Your task to perform on an android device: toggle show notifications on the lock screen Image 0: 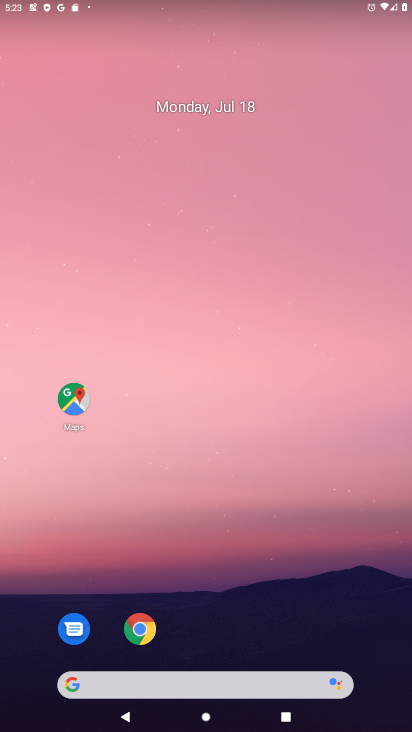
Step 0: drag from (298, 602) to (236, 41)
Your task to perform on an android device: toggle show notifications on the lock screen Image 1: 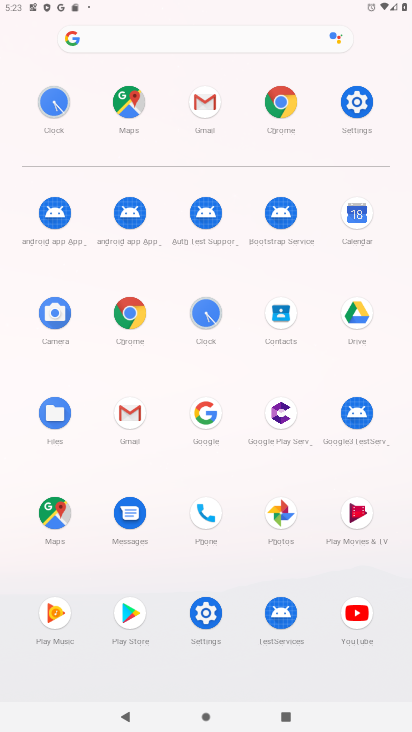
Step 1: click (356, 95)
Your task to perform on an android device: toggle show notifications on the lock screen Image 2: 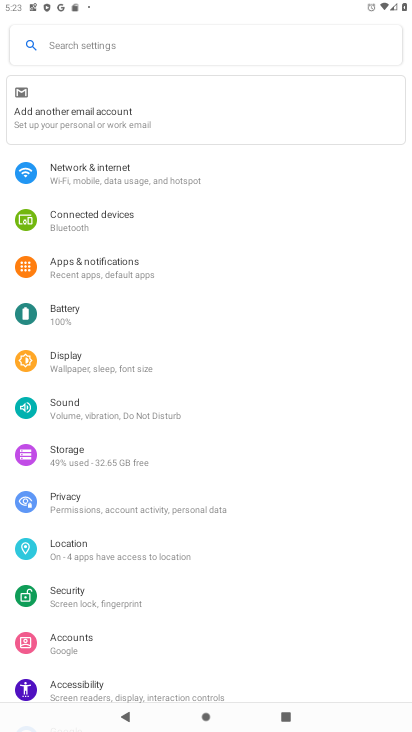
Step 2: click (118, 270)
Your task to perform on an android device: toggle show notifications on the lock screen Image 3: 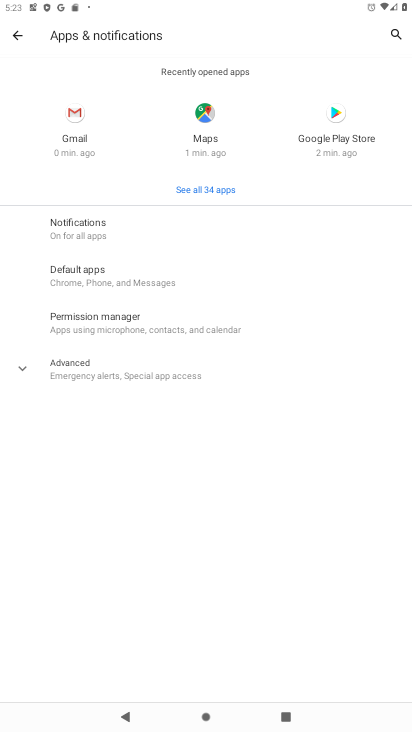
Step 3: click (92, 219)
Your task to perform on an android device: toggle show notifications on the lock screen Image 4: 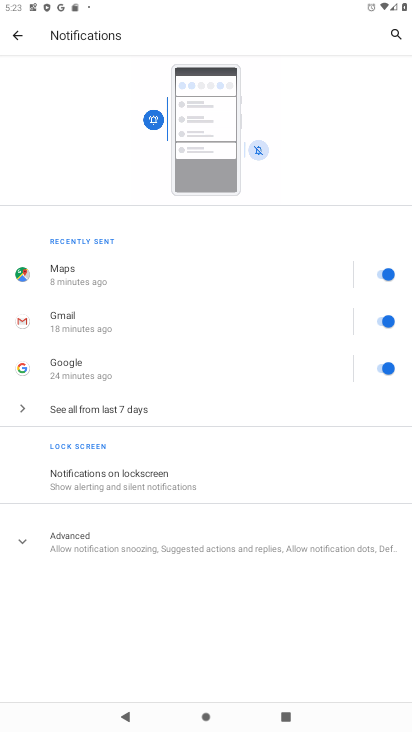
Step 4: click (124, 472)
Your task to perform on an android device: toggle show notifications on the lock screen Image 5: 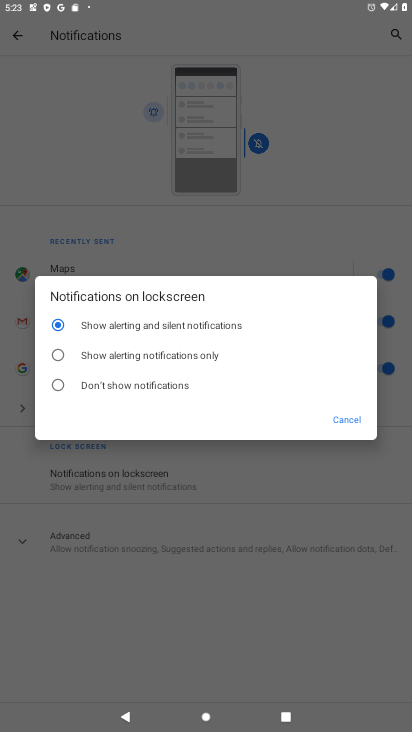
Step 5: click (144, 355)
Your task to perform on an android device: toggle show notifications on the lock screen Image 6: 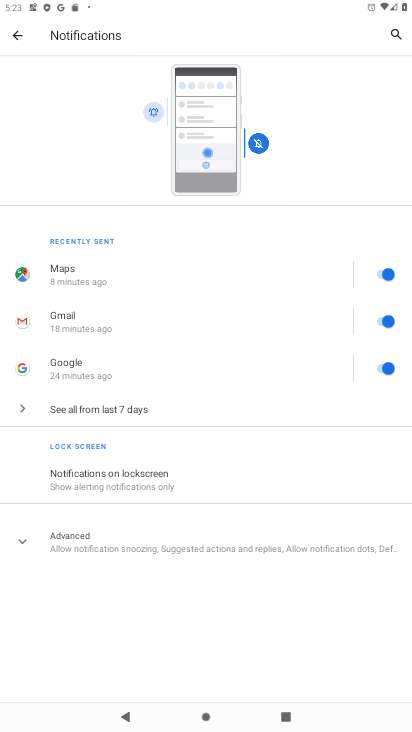
Step 6: task complete